Your task to perform on an android device: Open Google Image 0: 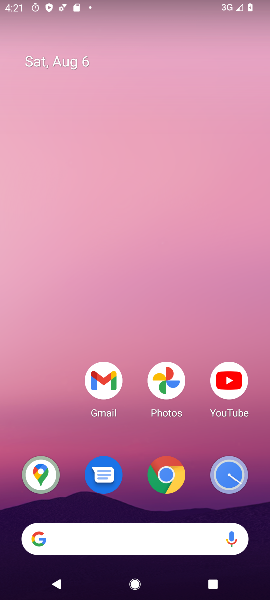
Step 0: click (88, 536)
Your task to perform on an android device: Open Google Image 1: 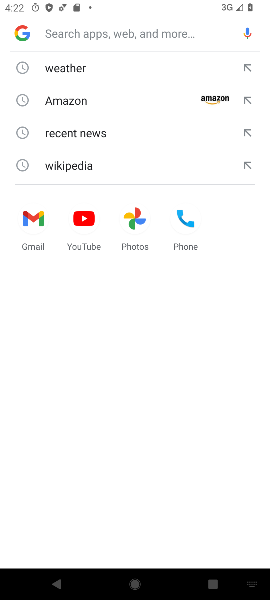
Step 1: task complete